Your task to perform on an android device: turn off sleep mode Image 0: 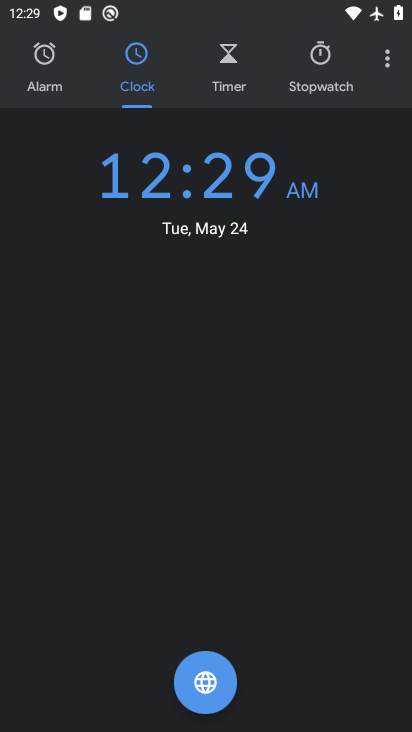
Step 0: press home button
Your task to perform on an android device: turn off sleep mode Image 1: 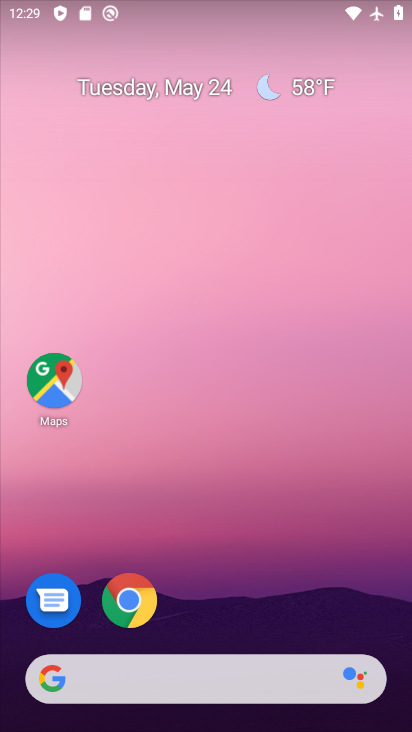
Step 1: drag from (297, 575) to (187, 51)
Your task to perform on an android device: turn off sleep mode Image 2: 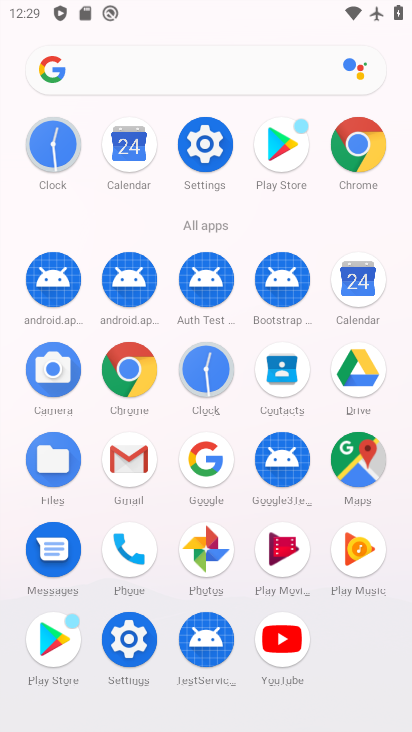
Step 2: click (208, 152)
Your task to perform on an android device: turn off sleep mode Image 3: 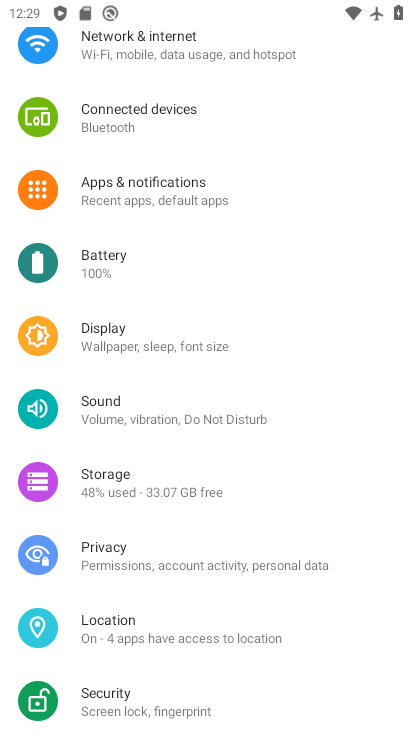
Step 3: click (199, 332)
Your task to perform on an android device: turn off sleep mode Image 4: 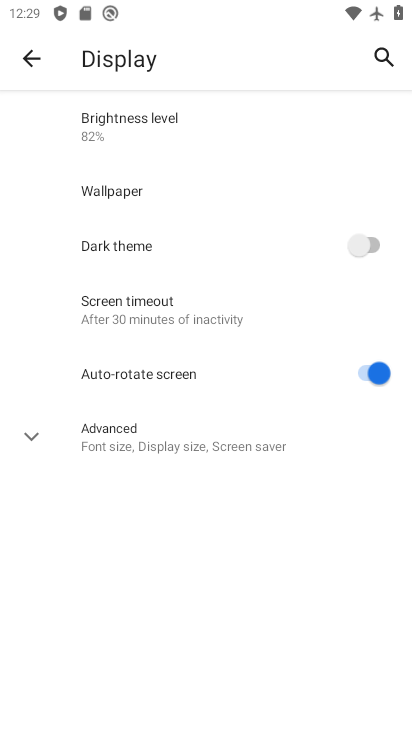
Step 4: task complete